Your task to perform on an android device: turn off sleep mode Image 0: 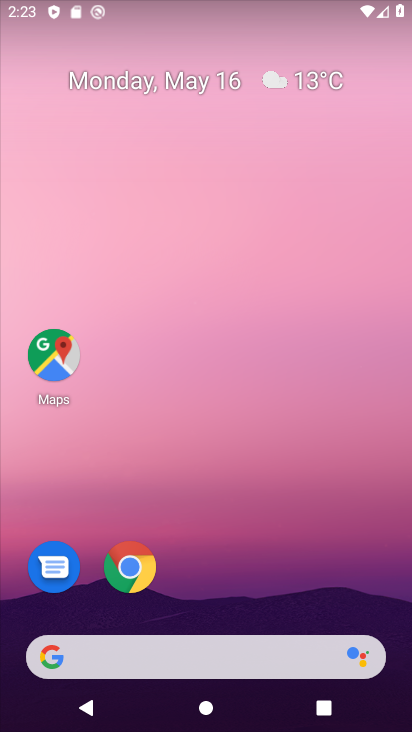
Step 0: drag from (271, 592) to (219, 92)
Your task to perform on an android device: turn off sleep mode Image 1: 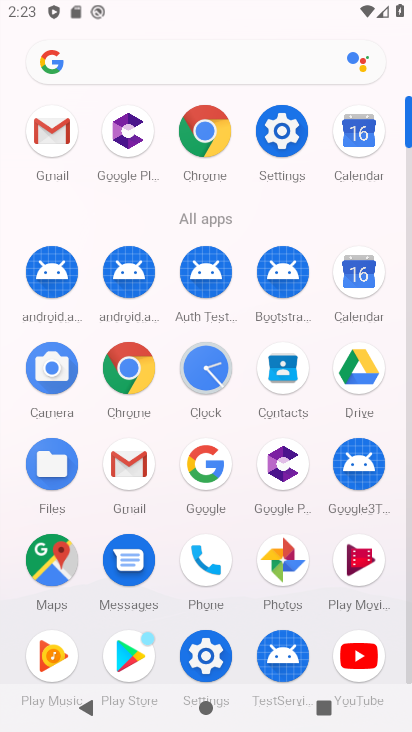
Step 1: click (270, 112)
Your task to perform on an android device: turn off sleep mode Image 2: 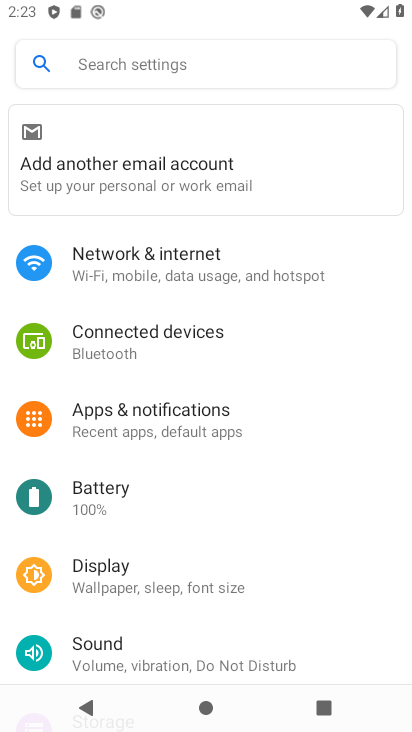
Step 2: click (159, 576)
Your task to perform on an android device: turn off sleep mode Image 3: 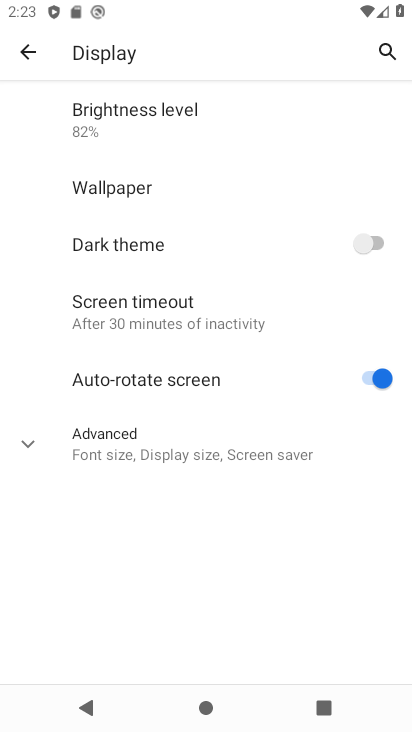
Step 3: click (203, 322)
Your task to perform on an android device: turn off sleep mode Image 4: 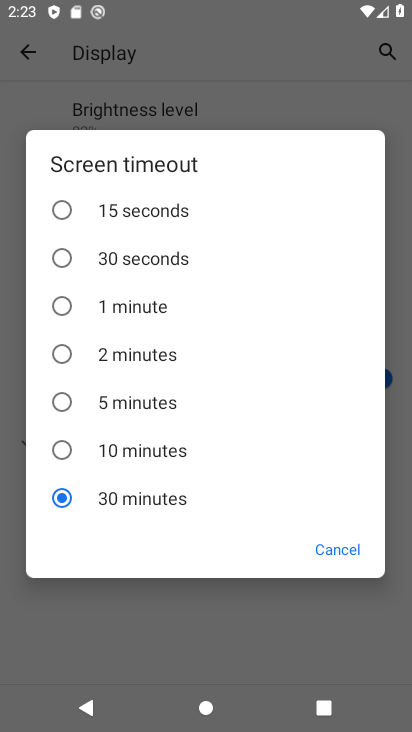
Step 4: task complete